Your task to perform on an android device: Show me popular videos on Youtube Image 0: 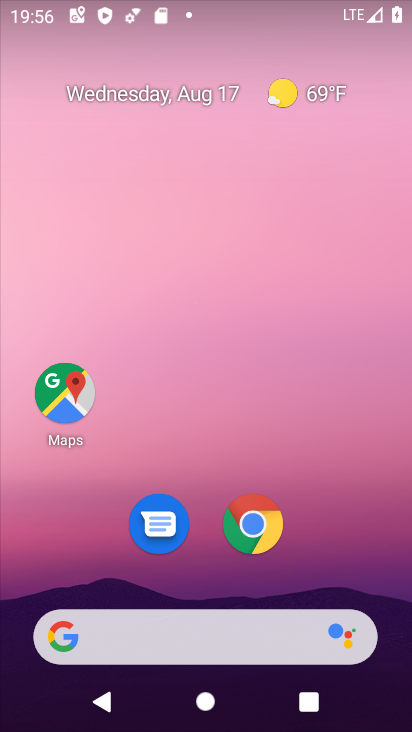
Step 0: drag from (312, 495) to (333, 14)
Your task to perform on an android device: Show me popular videos on Youtube Image 1: 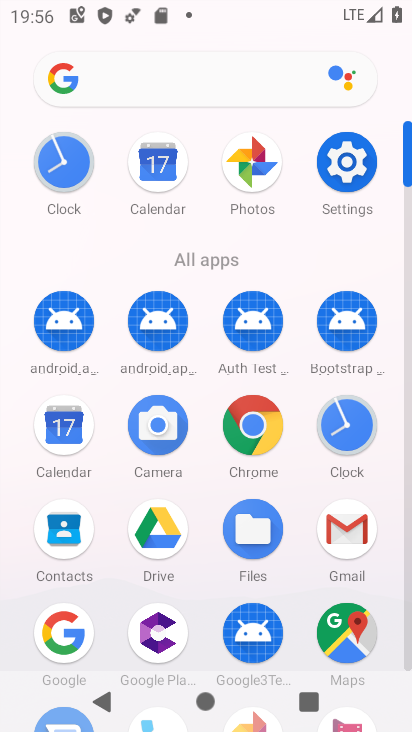
Step 1: drag from (298, 468) to (308, 95)
Your task to perform on an android device: Show me popular videos on Youtube Image 2: 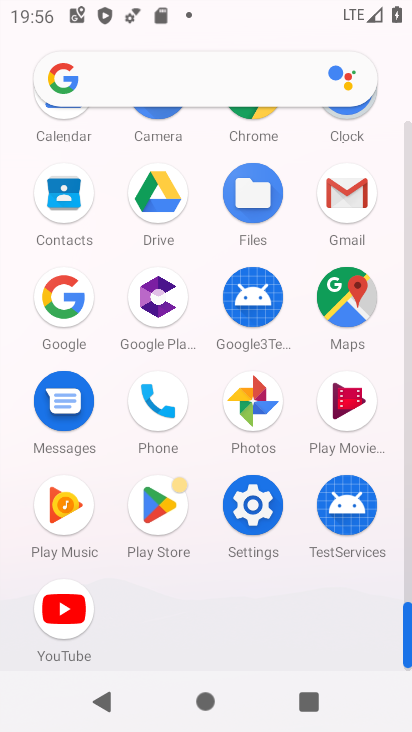
Step 2: click (69, 606)
Your task to perform on an android device: Show me popular videos on Youtube Image 3: 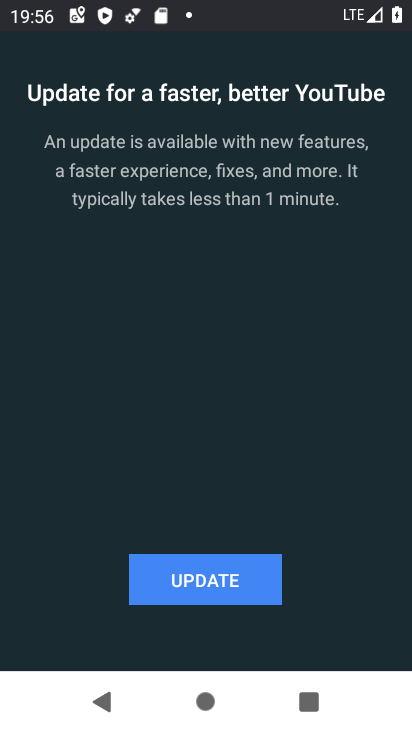
Step 3: click (229, 574)
Your task to perform on an android device: Show me popular videos on Youtube Image 4: 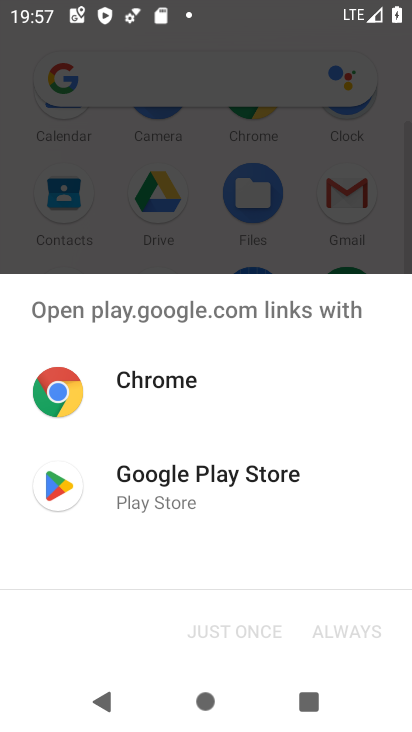
Step 4: click (156, 491)
Your task to perform on an android device: Show me popular videos on Youtube Image 5: 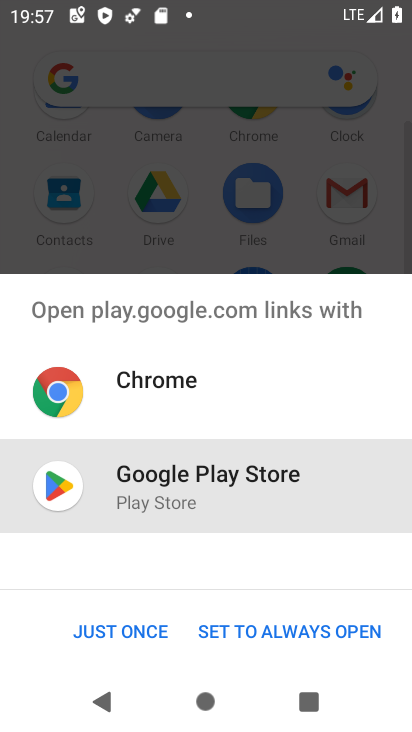
Step 5: click (132, 631)
Your task to perform on an android device: Show me popular videos on Youtube Image 6: 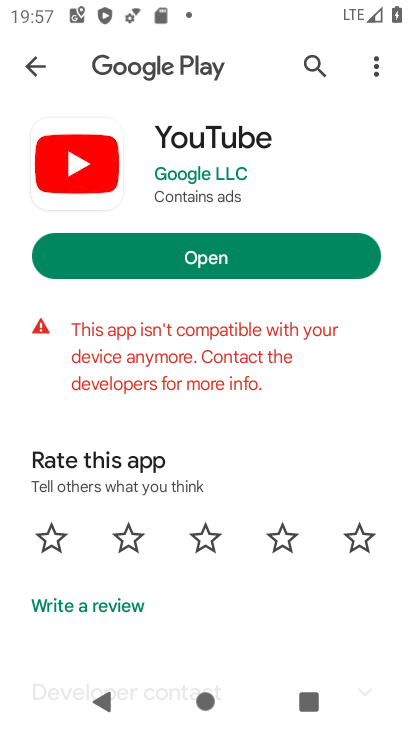
Step 6: click (272, 263)
Your task to perform on an android device: Show me popular videos on Youtube Image 7: 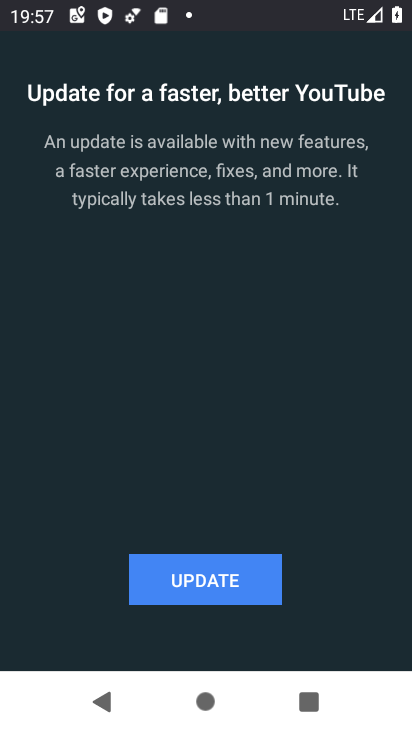
Step 7: click (240, 571)
Your task to perform on an android device: Show me popular videos on Youtube Image 8: 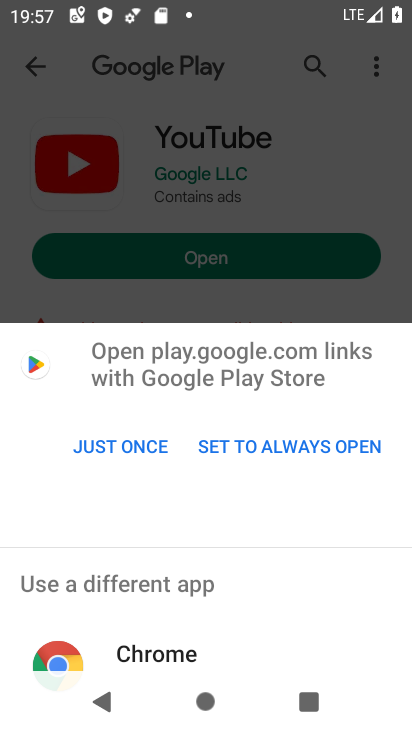
Step 8: click (138, 446)
Your task to perform on an android device: Show me popular videos on Youtube Image 9: 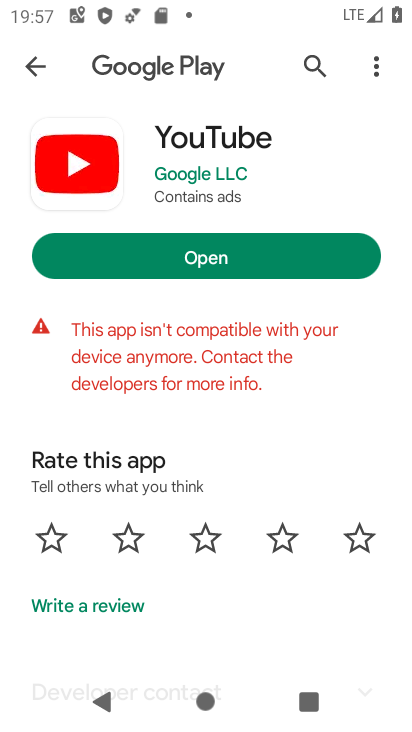
Step 9: click (286, 265)
Your task to perform on an android device: Show me popular videos on Youtube Image 10: 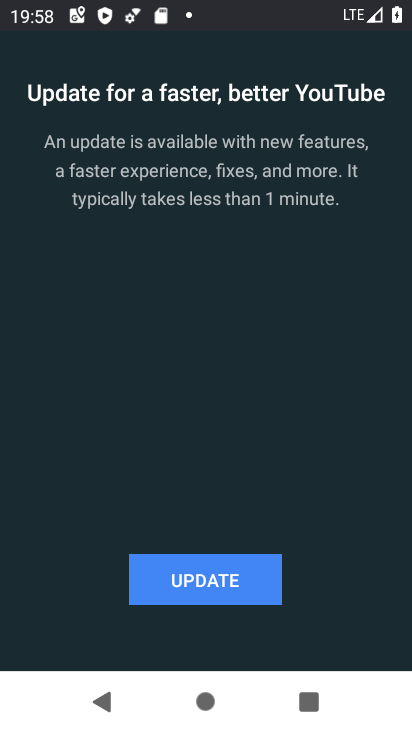
Step 10: task complete